Your task to perform on an android device: add a contact Image 0: 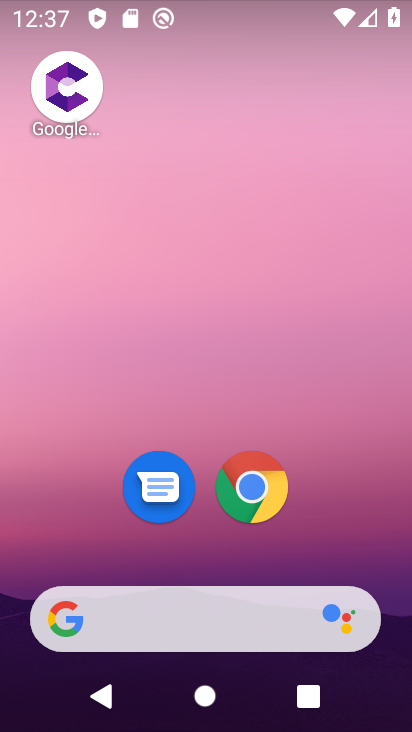
Step 0: drag from (161, 473) to (193, 0)
Your task to perform on an android device: add a contact Image 1: 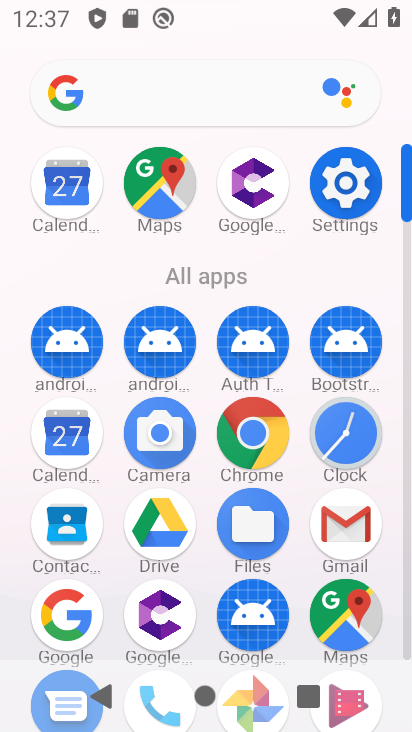
Step 1: click (54, 538)
Your task to perform on an android device: add a contact Image 2: 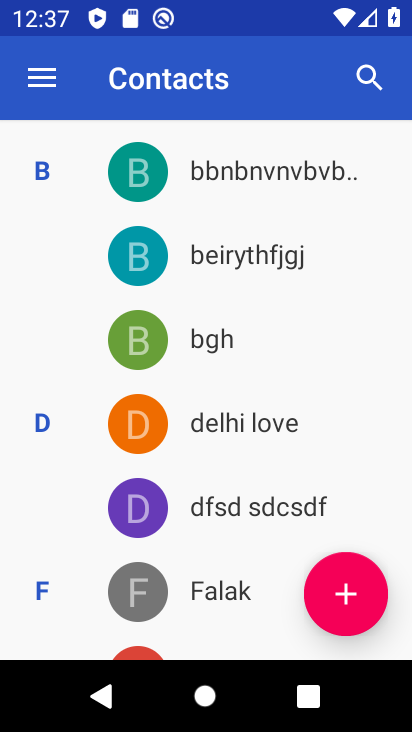
Step 2: click (357, 594)
Your task to perform on an android device: add a contact Image 3: 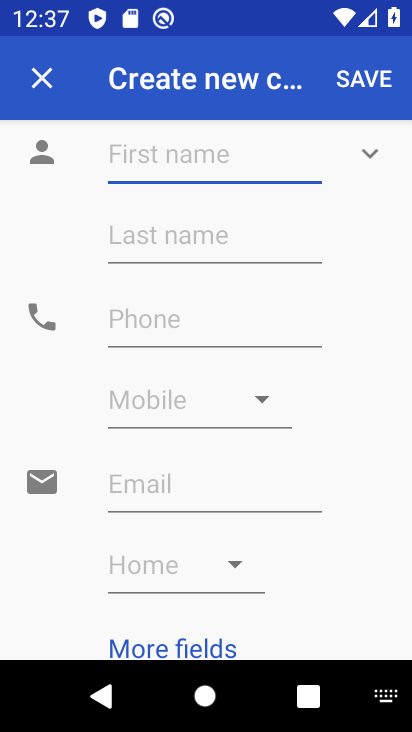
Step 3: click (164, 161)
Your task to perform on an android device: add a contact Image 4: 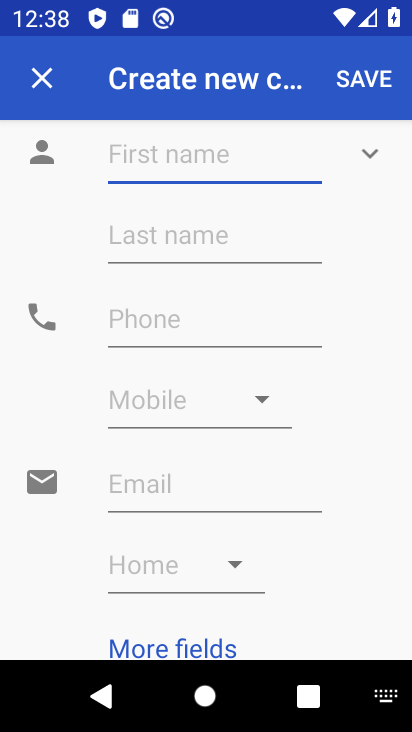
Step 4: type "hvhv"
Your task to perform on an android device: add a contact Image 5: 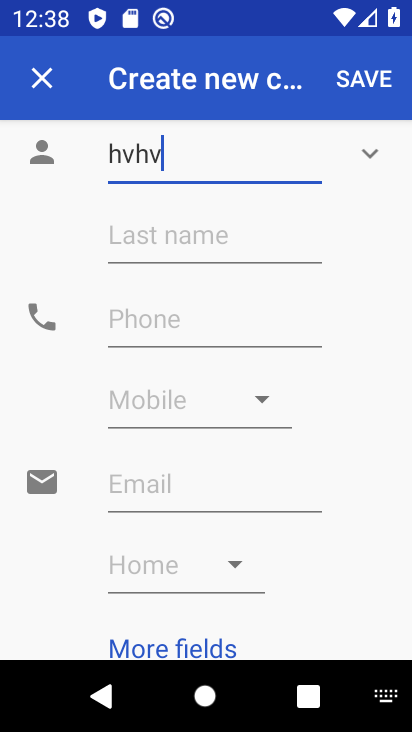
Step 5: click (182, 327)
Your task to perform on an android device: add a contact Image 6: 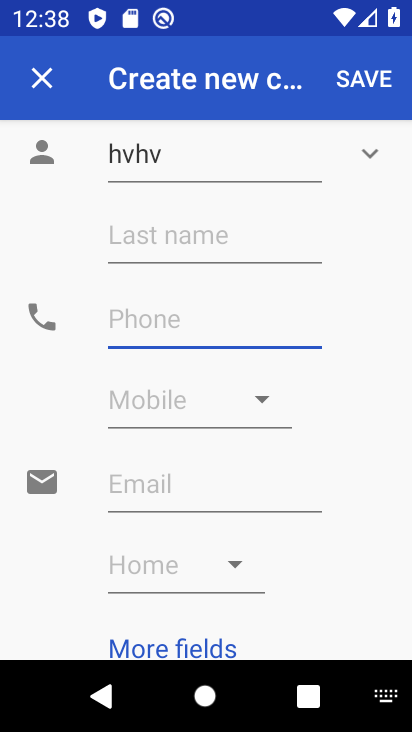
Step 6: type "8787"
Your task to perform on an android device: add a contact Image 7: 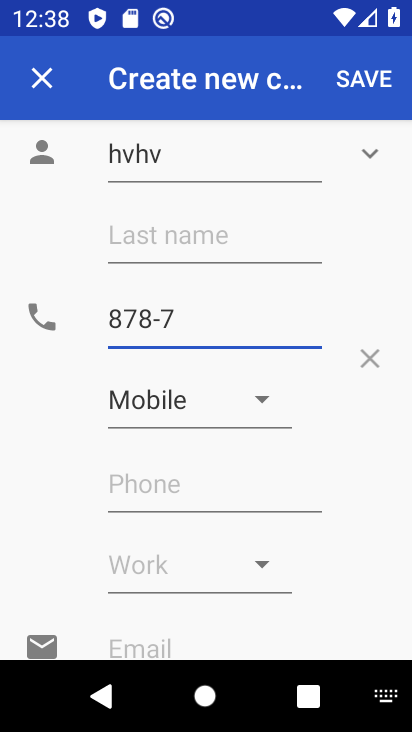
Step 7: click (368, 73)
Your task to perform on an android device: add a contact Image 8: 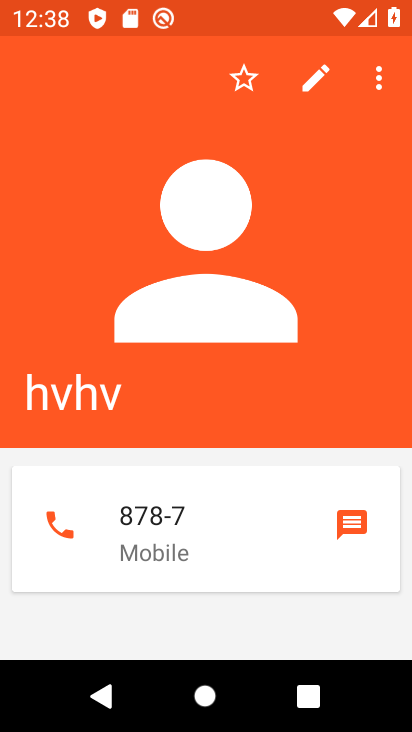
Step 8: task complete